Your task to perform on an android device: turn pop-ups on in chrome Image 0: 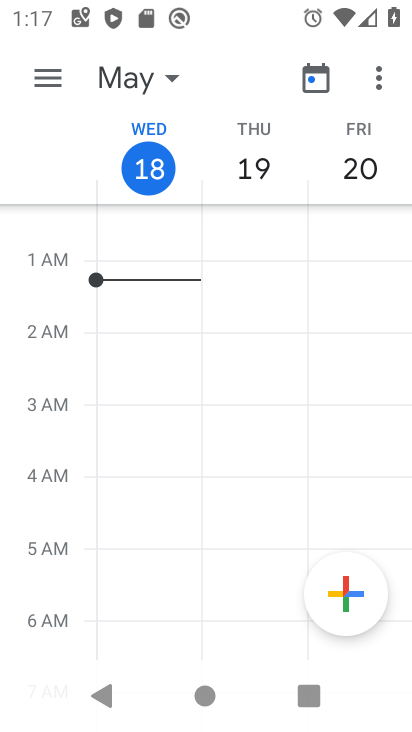
Step 0: press home button
Your task to perform on an android device: turn pop-ups on in chrome Image 1: 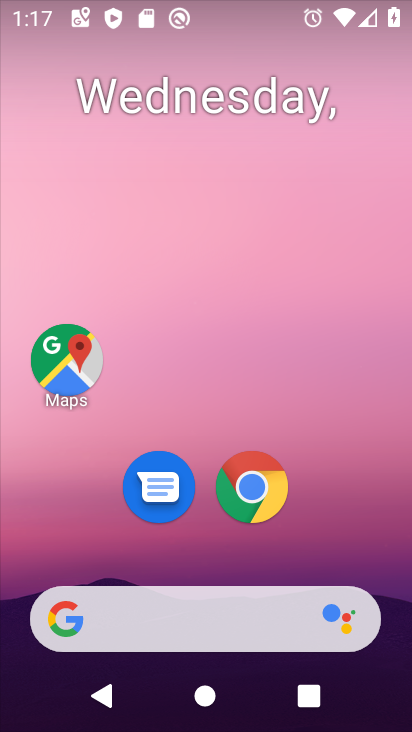
Step 1: click (265, 495)
Your task to perform on an android device: turn pop-ups on in chrome Image 2: 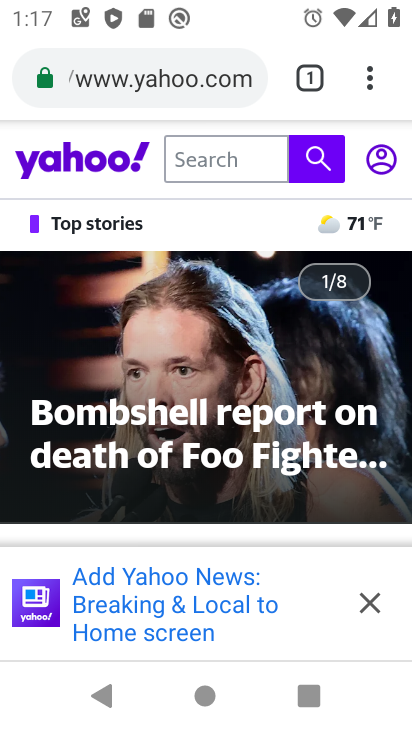
Step 2: click (372, 81)
Your task to perform on an android device: turn pop-ups on in chrome Image 3: 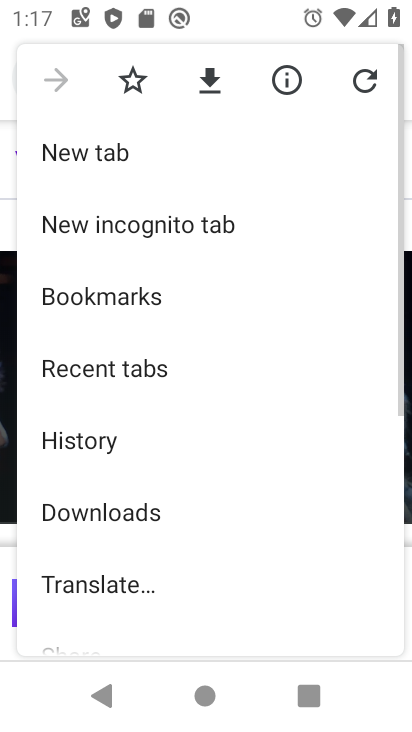
Step 3: drag from (111, 594) to (167, 248)
Your task to perform on an android device: turn pop-ups on in chrome Image 4: 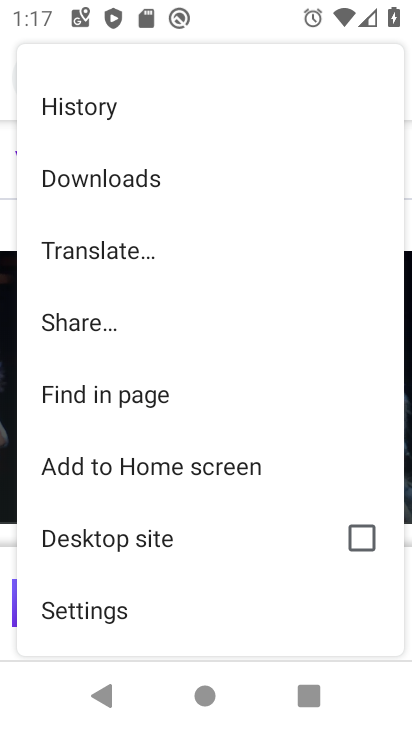
Step 4: drag from (105, 598) to (149, 349)
Your task to perform on an android device: turn pop-ups on in chrome Image 5: 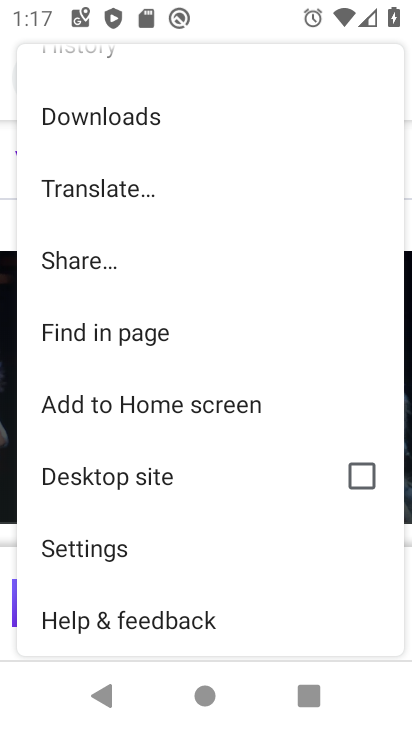
Step 5: click (86, 529)
Your task to perform on an android device: turn pop-ups on in chrome Image 6: 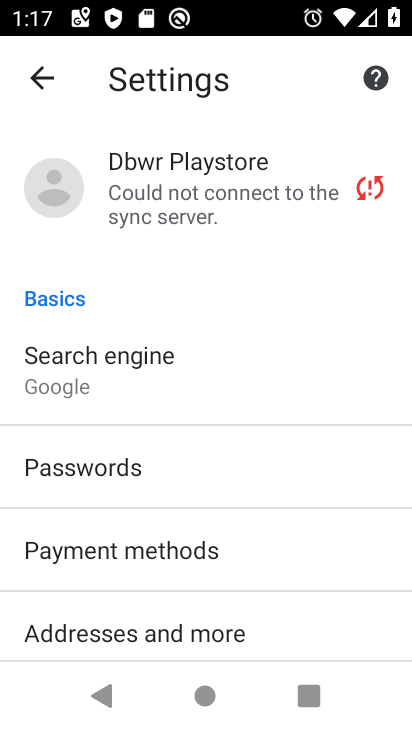
Step 6: drag from (137, 599) to (202, 262)
Your task to perform on an android device: turn pop-ups on in chrome Image 7: 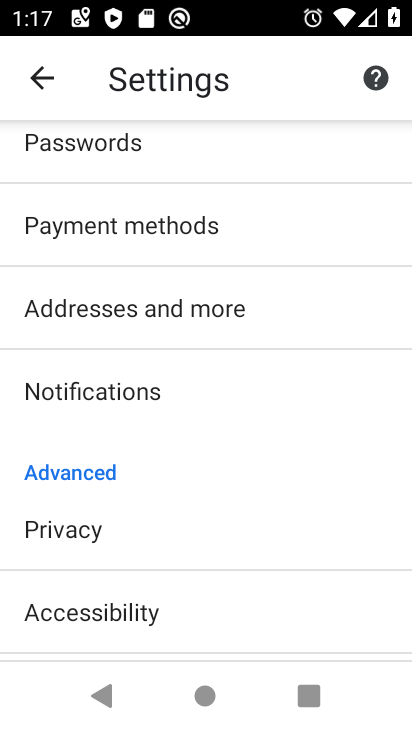
Step 7: drag from (143, 538) to (219, 122)
Your task to perform on an android device: turn pop-ups on in chrome Image 8: 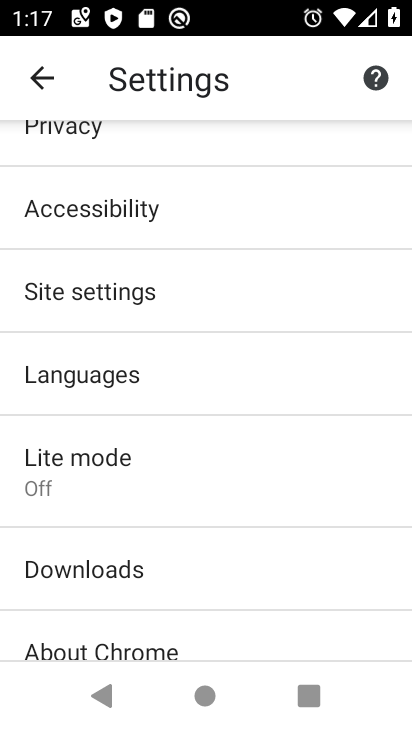
Step 8: click (130, 293)
Your task to perform on an android device: turn pop-ups on in chrome Image 9: 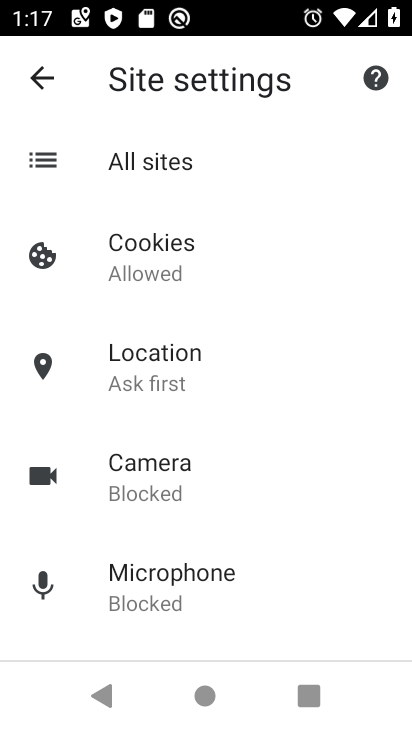
Step 9: drag from (155, 528) to (210, 255)
Your task to perform on an android device: turn pop-ups on in chrome Image 10: 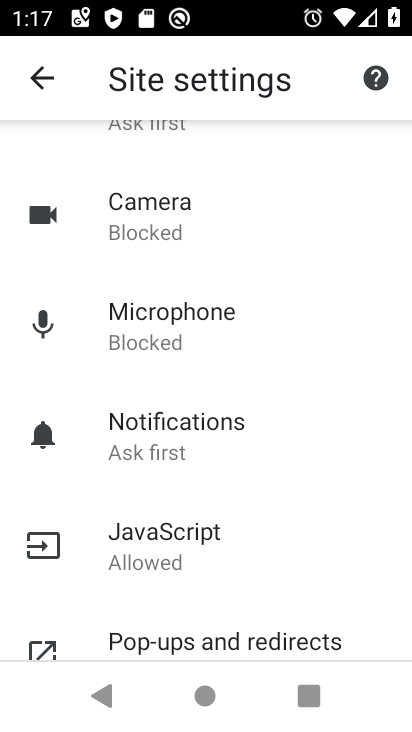
Step 10: click (191, 625)
Your task to perform on an android device: turn pop-ups on in chrome Image 11: 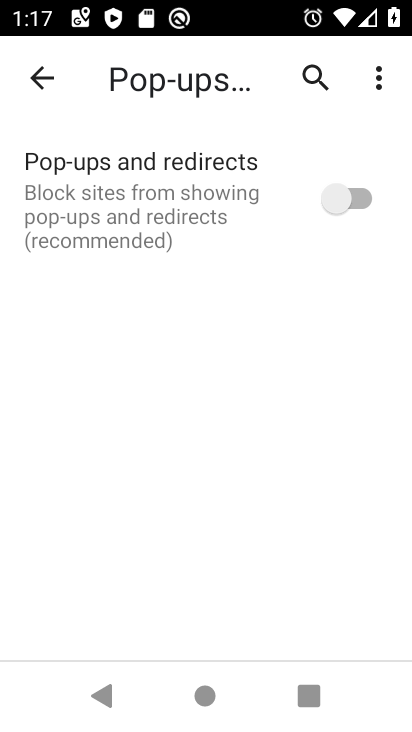
Step 11: click (361, 196)
Your task to perform on an android device: turn pop-ups on in chrome Image 12: 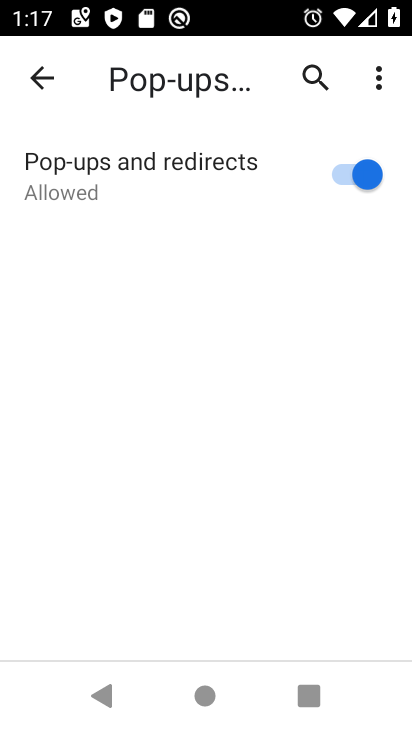
Step 12: task complete